Your task to perform on an android device: delete location history Image 0: 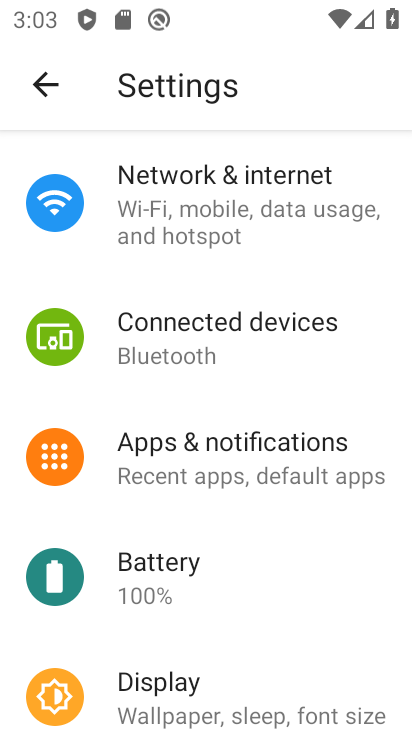
Step 0: press home button
Your task to perform on an android device: delete location history Image 1: 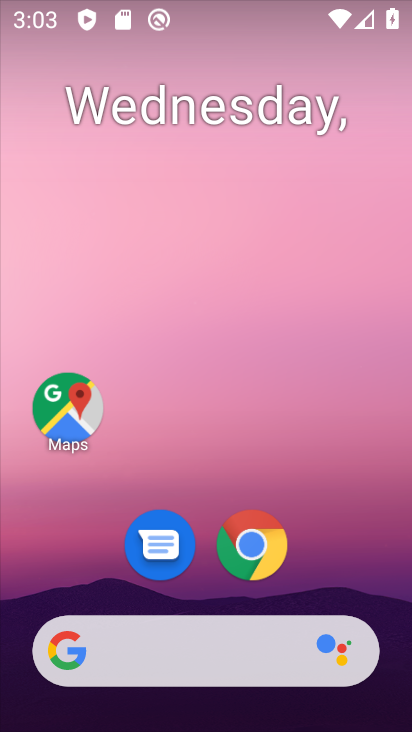
Step 1: drag from (314, 569) to (222, 36)
Your task to perform on an android device: delete location history Image 2: 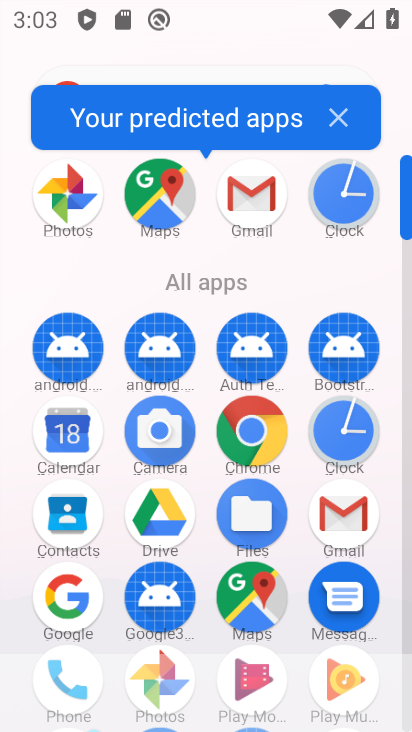
Step 2: click (286, 242)
Your task to perform on an android device: delete location history Image 3: 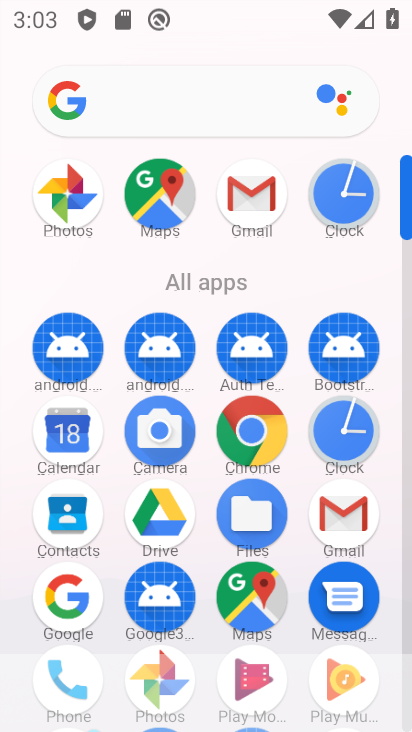
Step 3: drag from (268, 508) to (249, 269)
Your task to perform on an android device: delete location history Image 4: 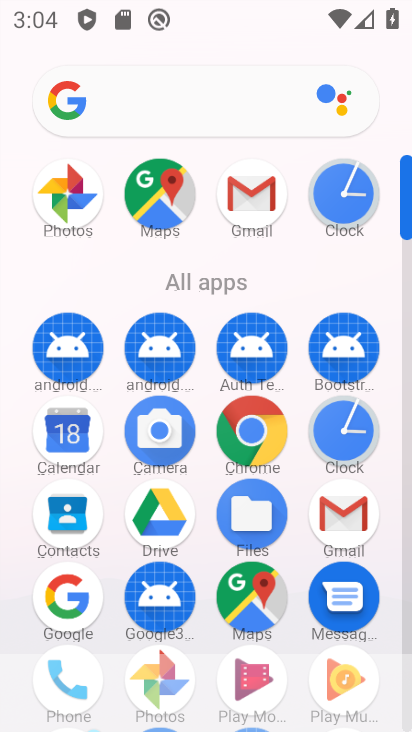
Step 4: drag from (274, 591) to (274, 286)
Your task to perform on an android device: delete location history Image 5: 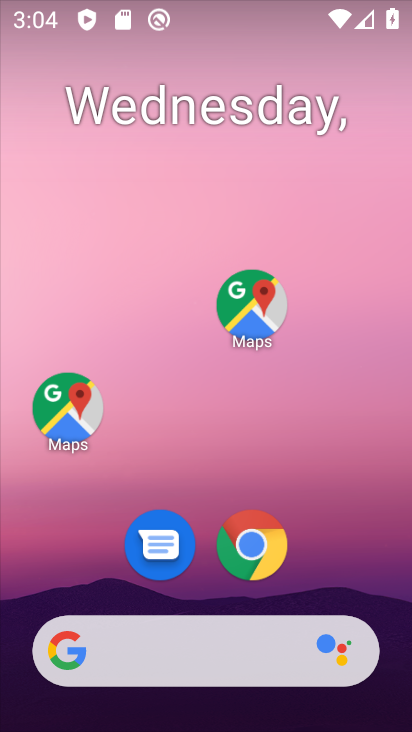
Step 5: drag from (194, 585) to (207, 187)
Your task to perform on an android device: delete location history Image 6: 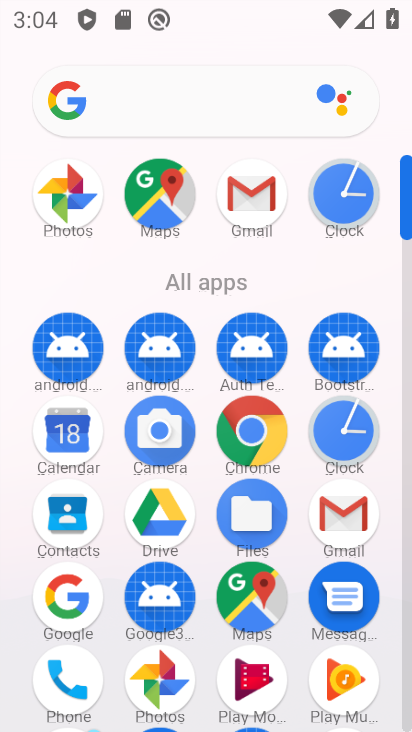
Step 6: drag from (274, 457) to (328, 329)
Your task to perform on an android device: delete location history Image 7: 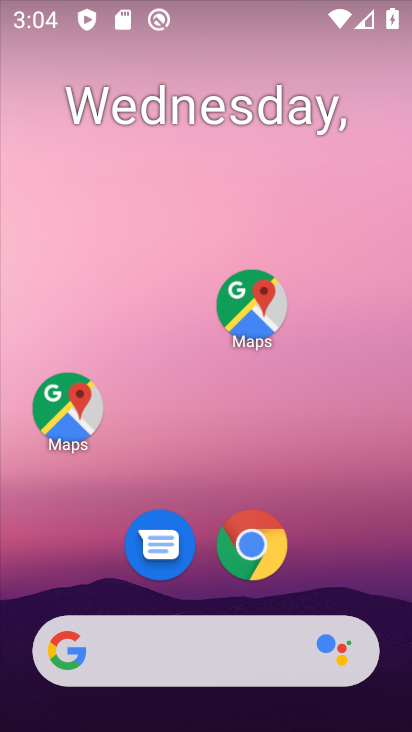
Step 7: drag from (302, 523) to (316, 149)
Your task to perform on an android device: delete location history Image 8: 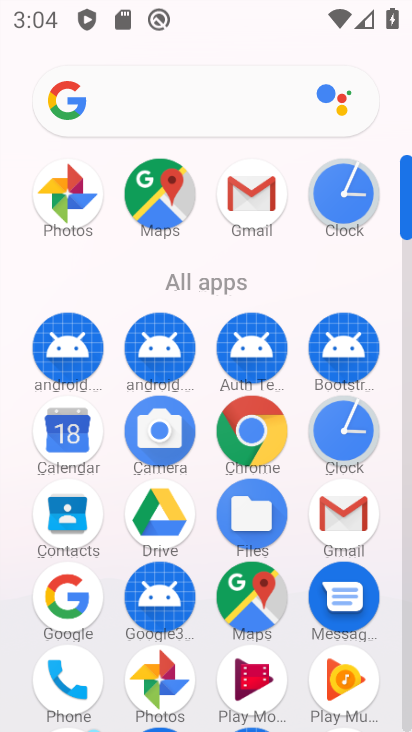
Step 8: drag from (185, 595) to (229, 285)
Your task to perform on an android device: delete location history Image 9: 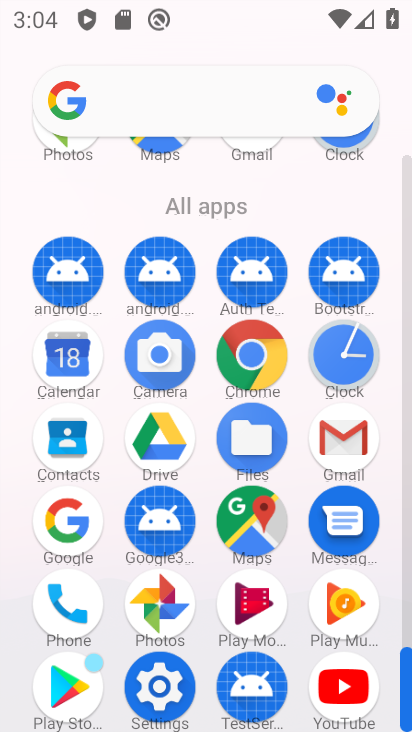
Step 9: click (150, 682)
Your task to perform on an android device: delete location history Image 10: 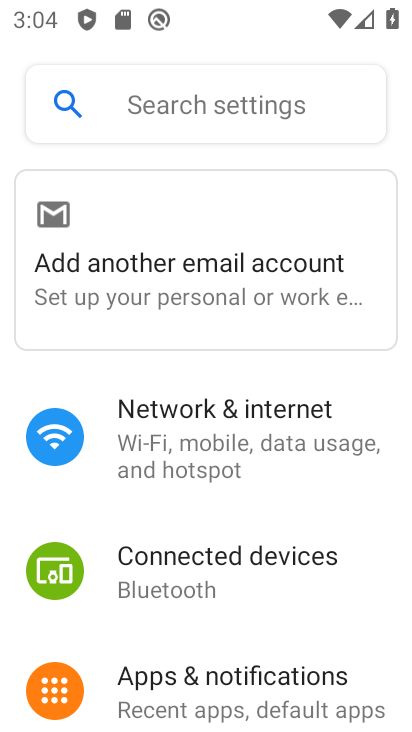
Step 10: drag from (189, 621) to (239, 340)
Your task to perform on an android device: delete location history Image 11: 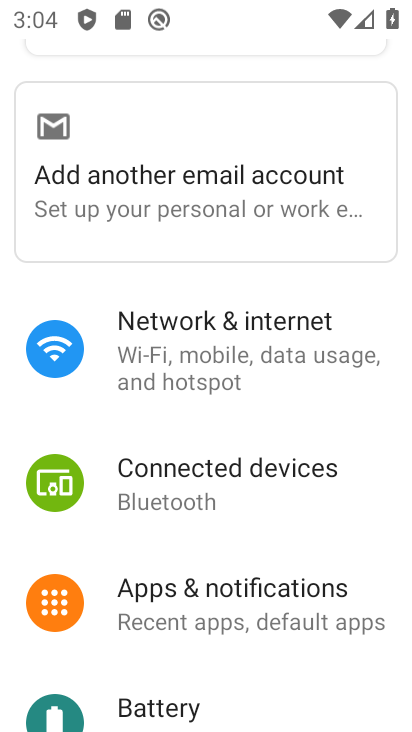
Step 11: click (232, 397)
Your task to perform on an android device: delete location history Image 12: 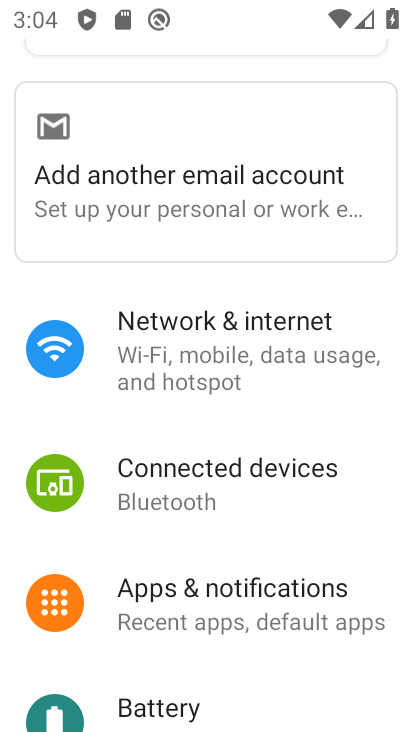
Step 12: drag from (234, 675) to (284, 343)
Your task to perform on an android device: delete location history Image 13: 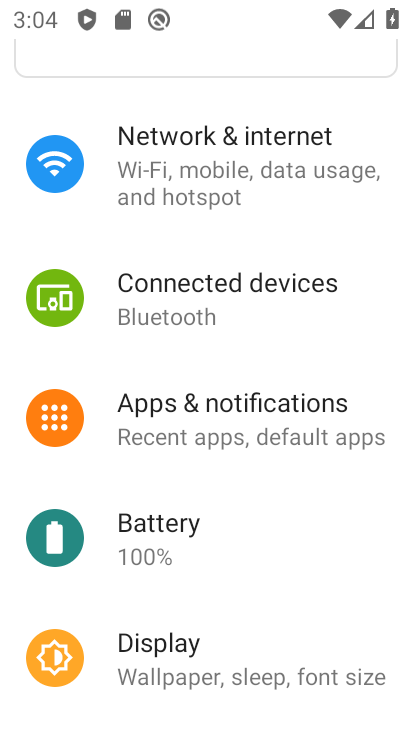
Step 13: drag from (182, 614) to (221, 343)
Your task to perform on an android device: delete location history Image 14: 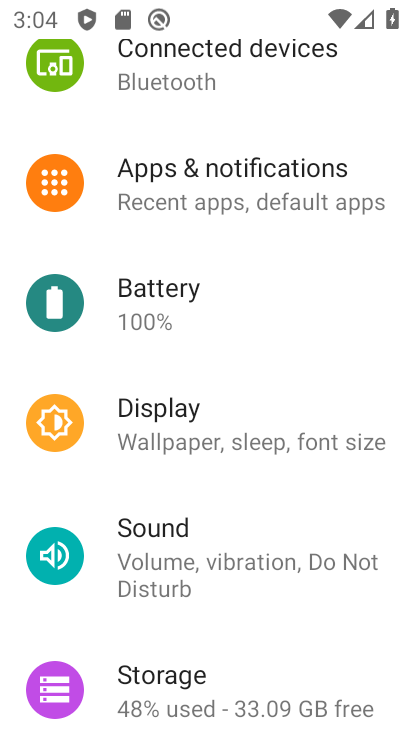
Step 14: drag from (209, 626) to (244, 333)
Your task to perform on an android device: delete location history Image 15: 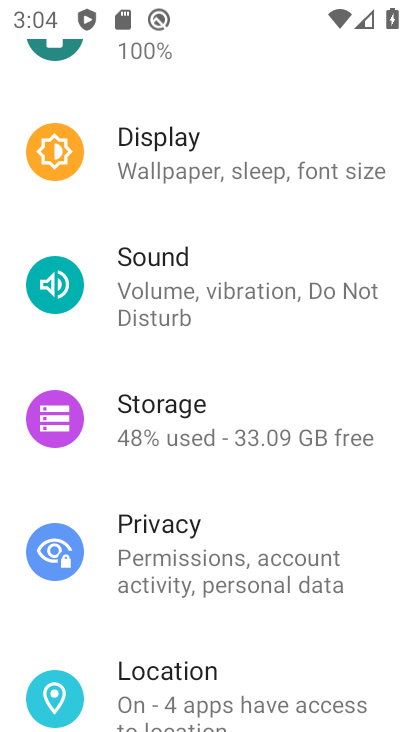
Step 15: drag from (170, 545) to (218, 315)
Your task to perform on an android device: delete location history Image 16: 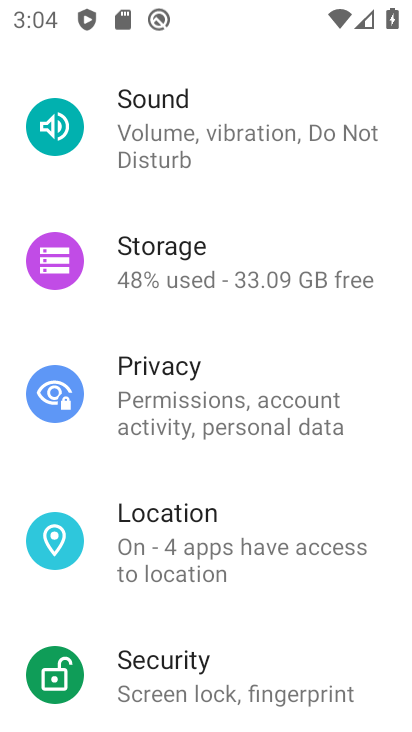
Step 16: click (177, 545)
Your task to perform on an android device: delete location history Image 17: 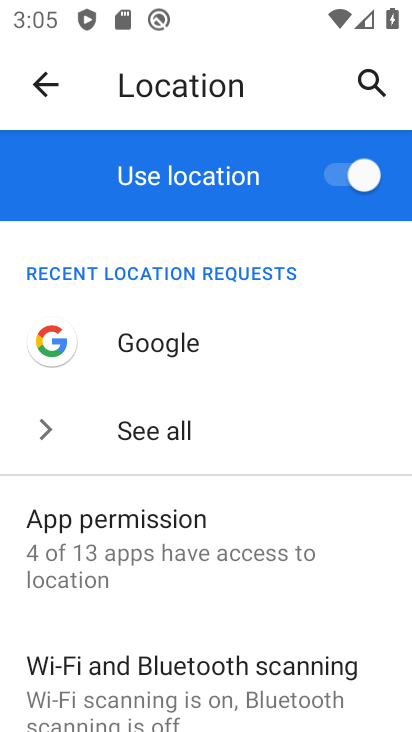
Step 17: drag from (219, 634) to (262, 326)
Your task to perform on an android device: delete location history Image 18: 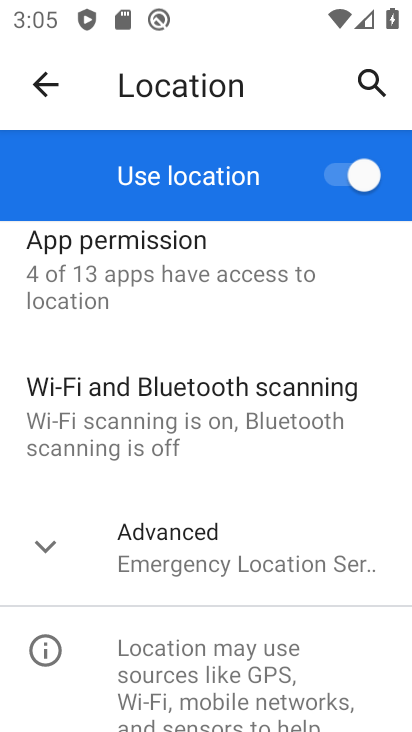
Step 18: drag from (190, 574) to (251, 205)
Your task to perform on an android device: delete location history Image 19: 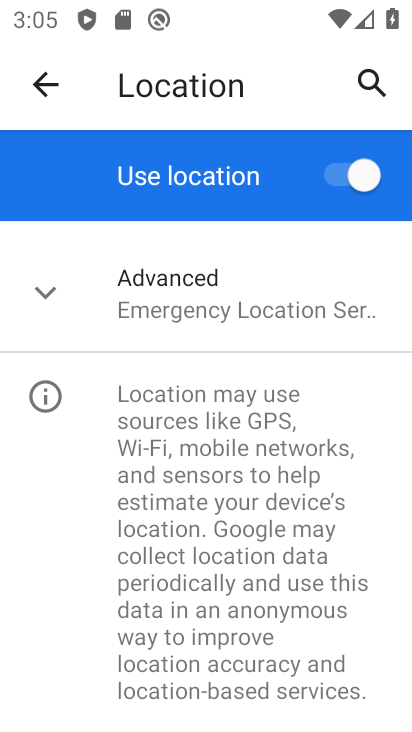
Step 19: click (152, 308)
Your task to perform on an android device: delete location history Image 20: 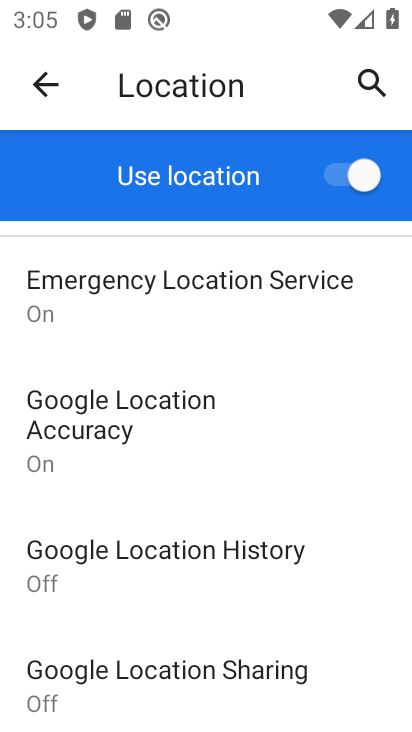
Step 20: click (140, 559)
Your task to perform on an android device: delete location history Image 21: 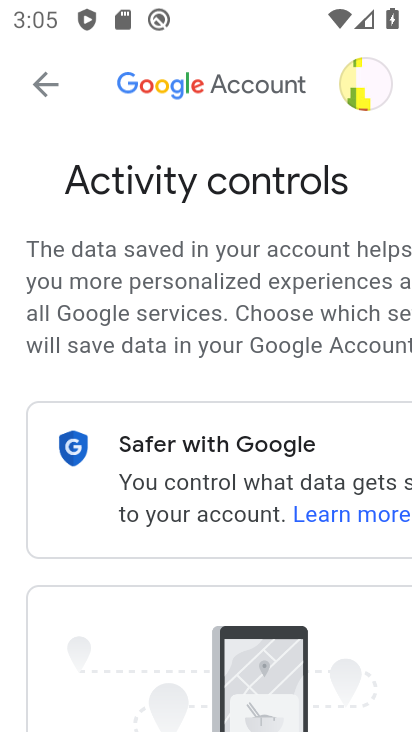
Step 21: drag from (263, 590) to (284, 205)
Your task to perform on an android device: delete location history Image 22: 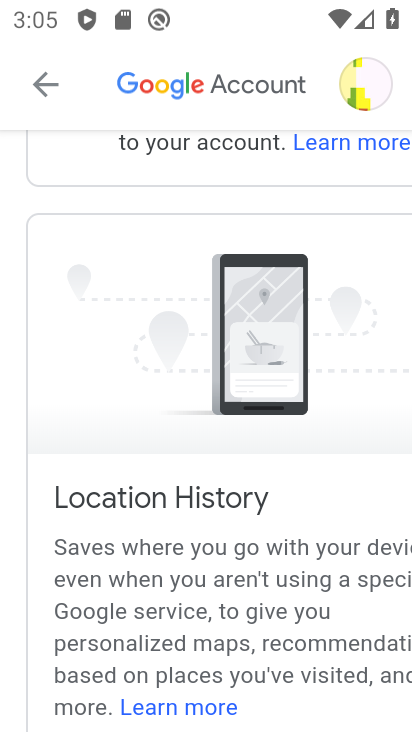
Step 22: drag from (269, 554) to (252, 109)
Your task to perform on an android device: delete location history Image 23: 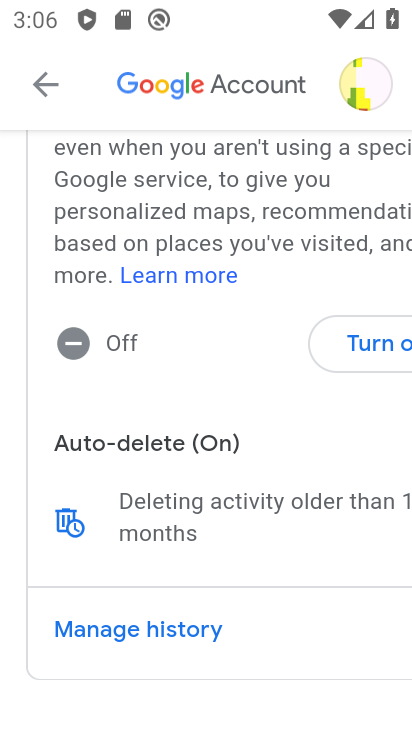
Step 23: click (117, 635)
Your task to perform on an android device: delete location history Image 24: 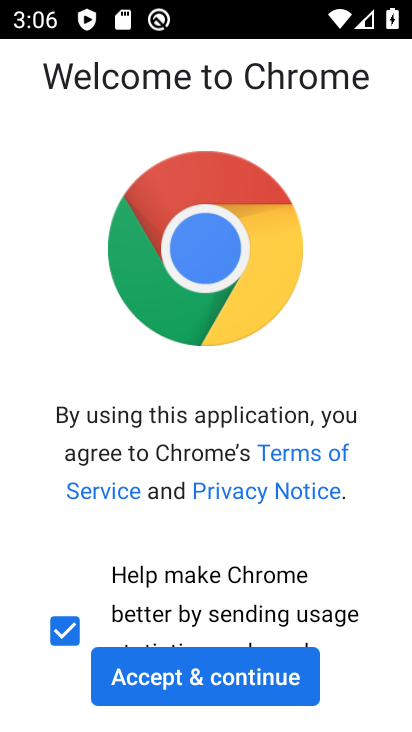
Step 24: click (175, 687)
Your task to perform on an android device: delete location history Image 25: 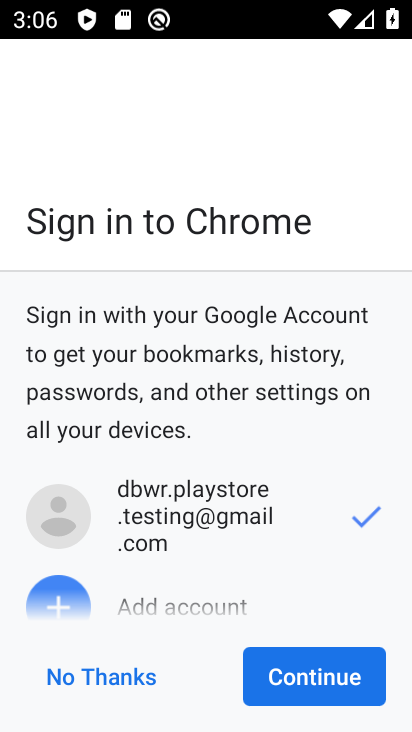
Step 25: click (309, 682)
Your task to perform on an android device: delete location history Image 26: 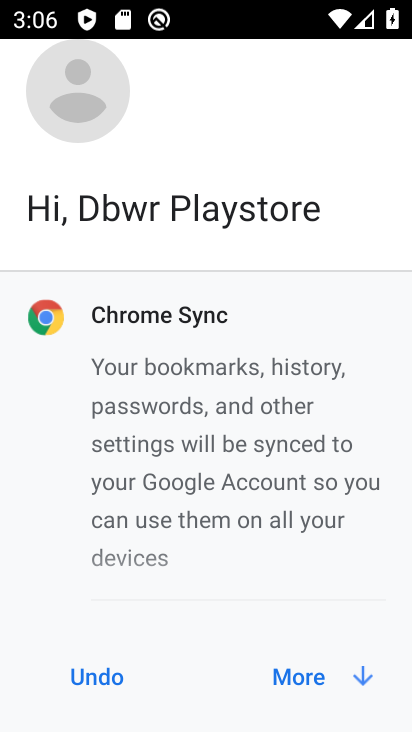
Step 26: click (294, 681)
Your task to perform on an android device: delete location history Image 27: 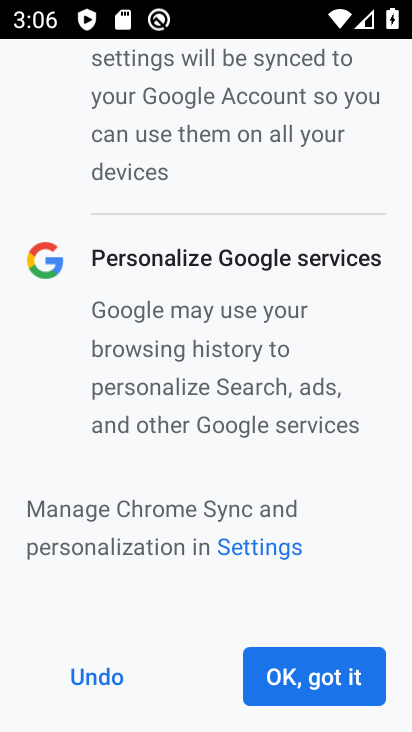
Step 27: click (294, 681)
Your task to perform on an android device: delete location history Image 28: 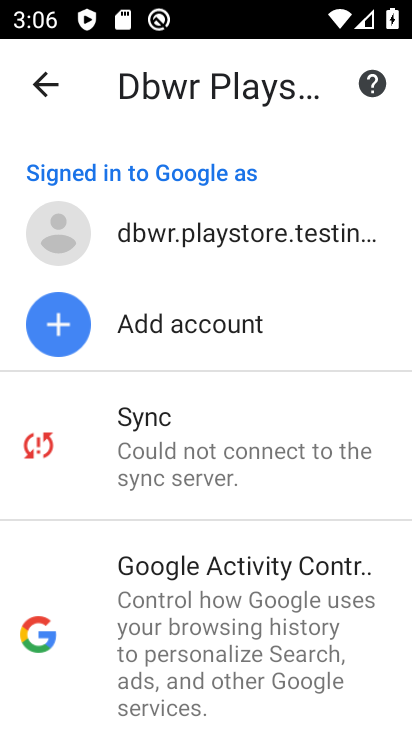
Step 28: click (43, 95)
Your task to perform on an android device: delete location history Image 29: 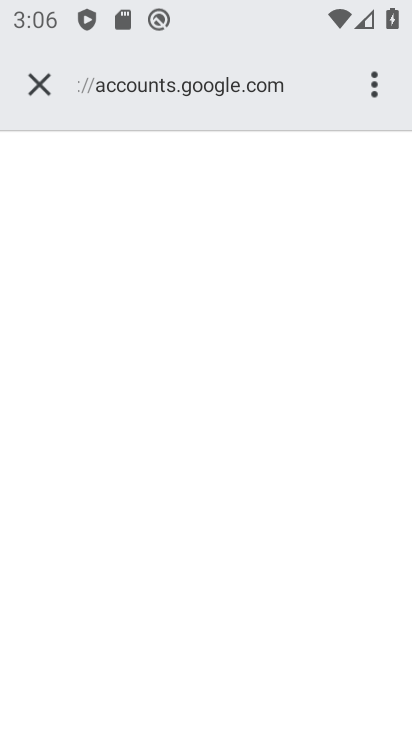
Step 29: press back button
Your task to perform on an android device: delete location history Image 30: 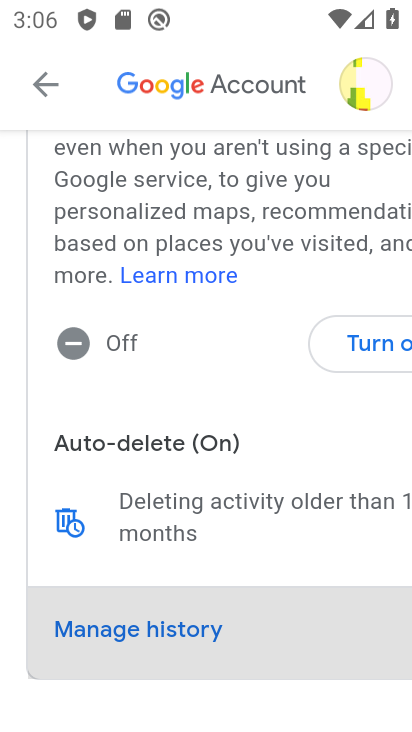
Step 30: click (119, 624)
Your task to perform on an android device: delete location history Image 31: 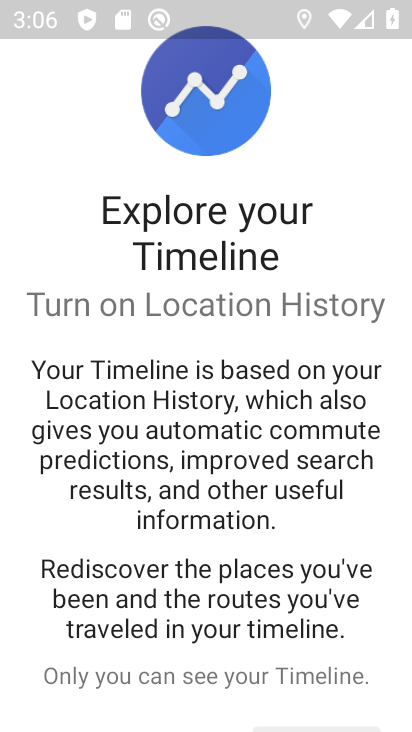
Step 31: click (315, 377)
Your task to perform on an android device: delete location history Image 32: 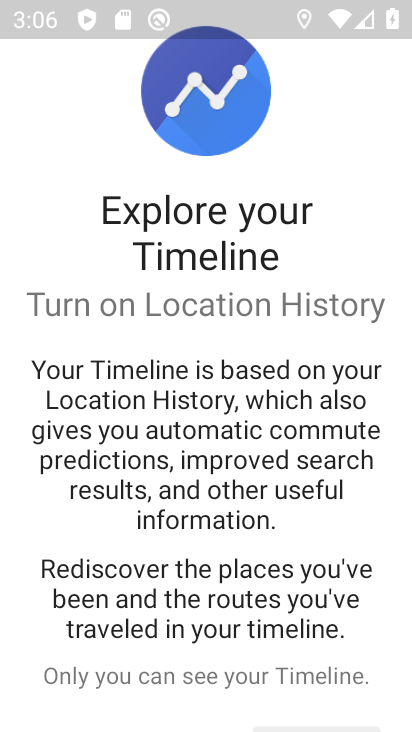
Step 32: click (236, 420)
Your task to perform on an android device: delete location history Image 33: 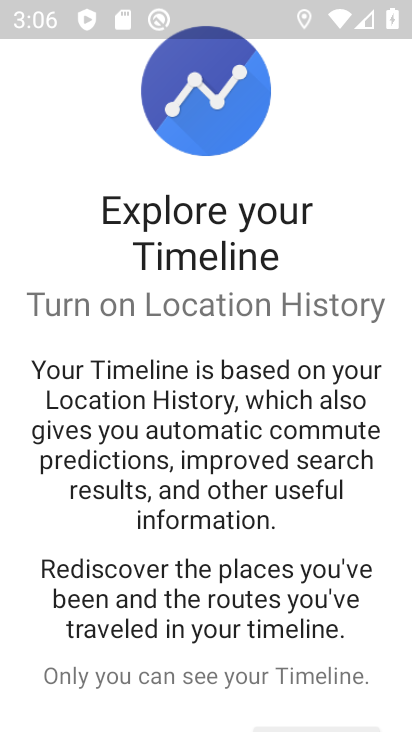
Step 33: drag from (286, 629) to (260, 371)
Your task to perform on an android device: delete location history Image 34: 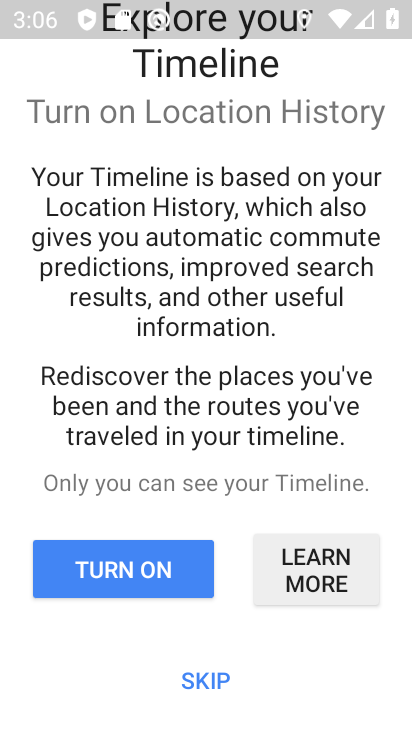
Step 34: click (198, 682)
Your task to perform on an android device: delete location history Image 35: 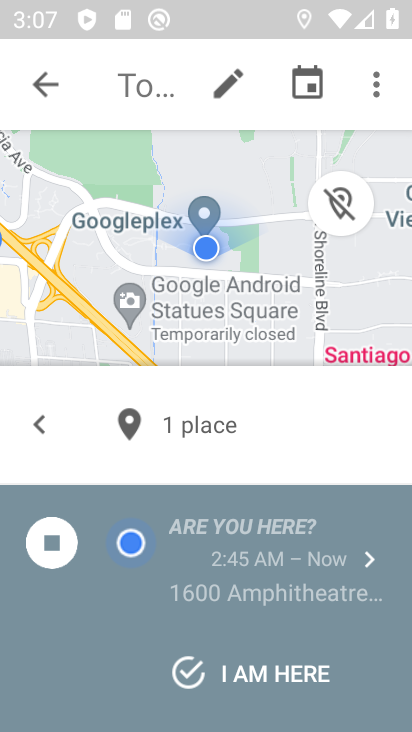
Step 35: click (376, 90)
Your task to perform on an android device: delete location history Image 36: 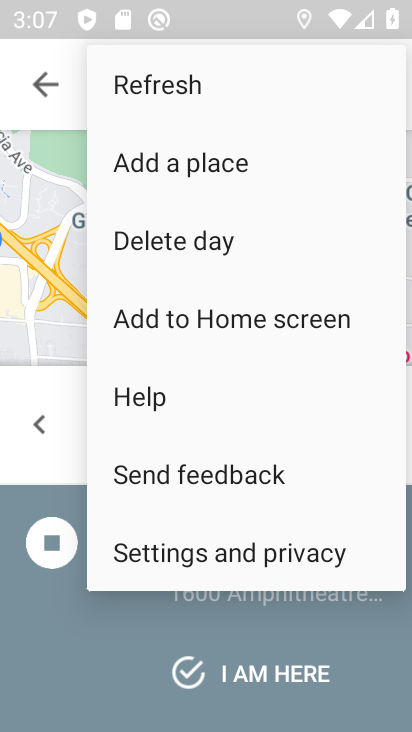
Step 36: click (199, 523)
Your task to perform on an android device: delete location history Image 37: 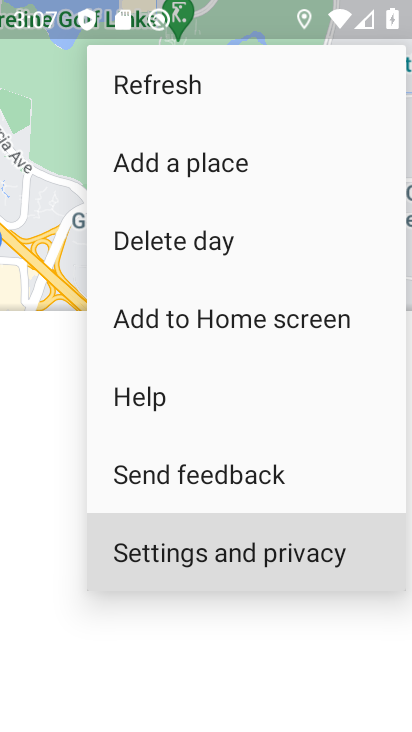
Step 37: click (189, 548)
Your task to perform on an android device: delete location history Image 38: 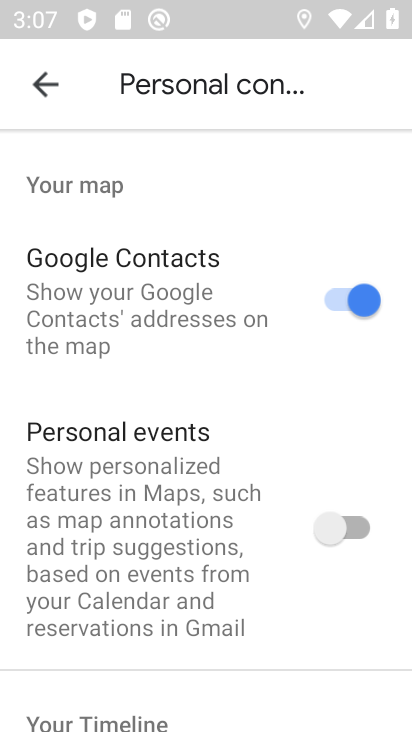
Step 38: drag from (166, 611) to (211, 352)
Your task to perform on an android device: delete location history Image 39: 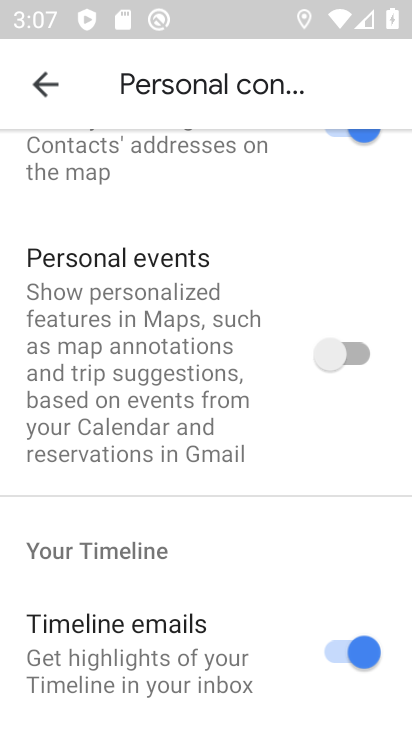
Step 39: drag from (143, 617) to (167, 389)
Your task to perform on an android device: delete location history Image 40: 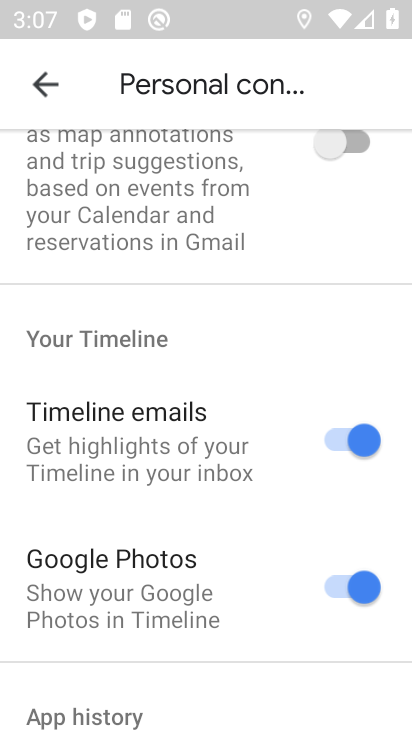
Step 40: click (194, 406)
Your task to perform on an android device: delete location history Image 41: 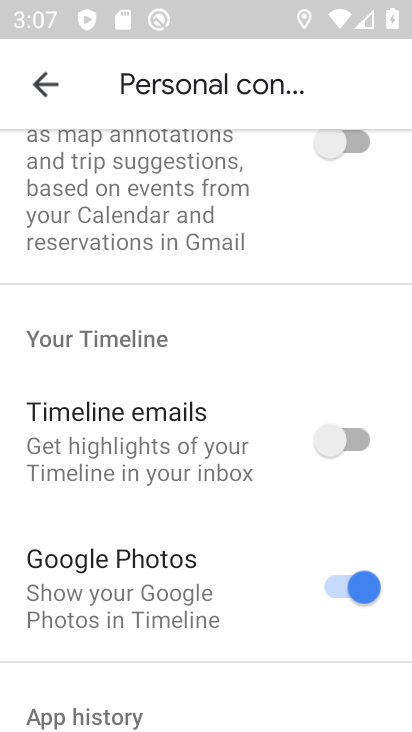
Step 41: drag from (158, 660) to (185, 360)
Your task to perform on an android device: delete location history Image 42: 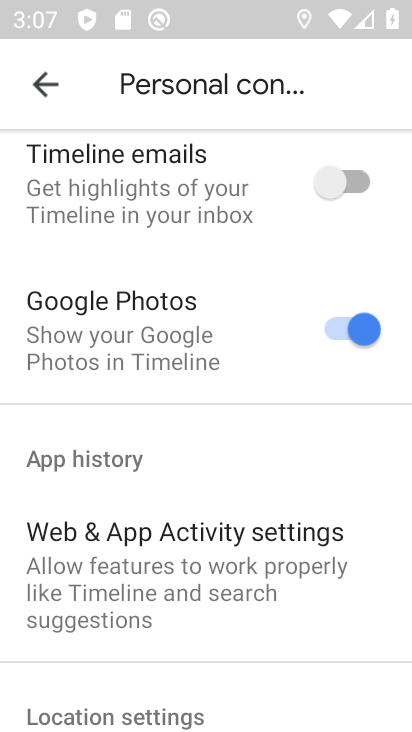
Step 42: drag from (115, 649) to (182, 351)
Your task to perform on an android device: delete location history Image 43: 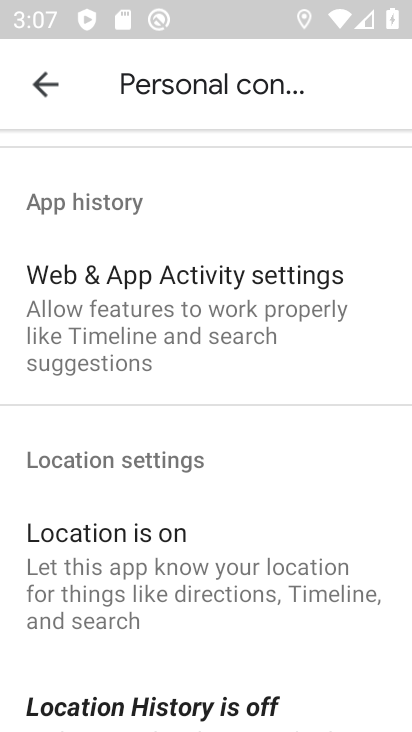
Step 43: drag from (125, 609) to (161, 372)
Your task to perform on an android device: delete location history Image 44: 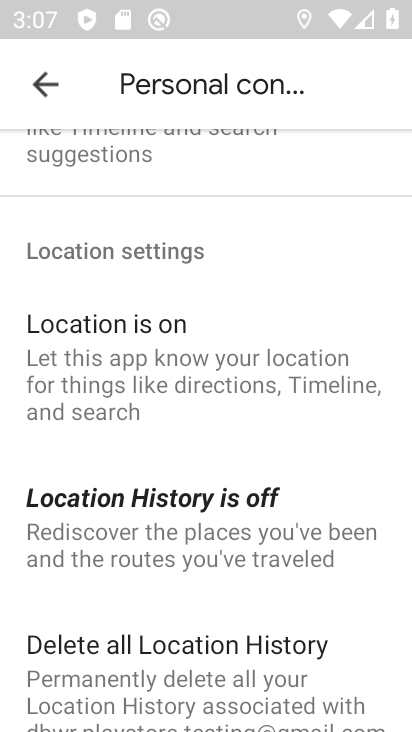
Step 44: drag from (138, 643) to (169, 426)
Your task to perform on an android device: delete location history Image 45: 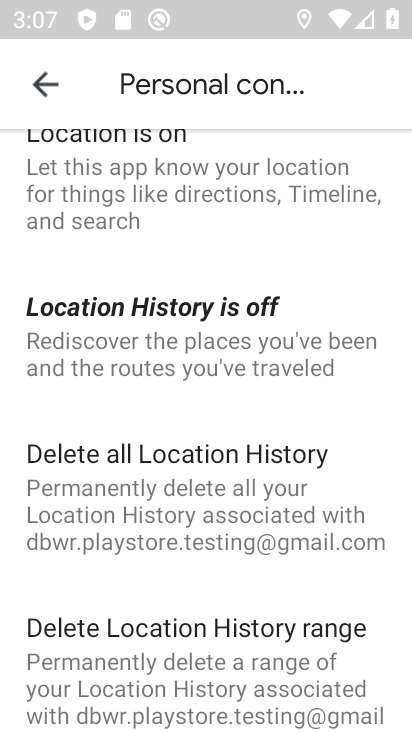
Step 45: click (157, 496)
Your task to perform on an android device: delete location history Image 46: 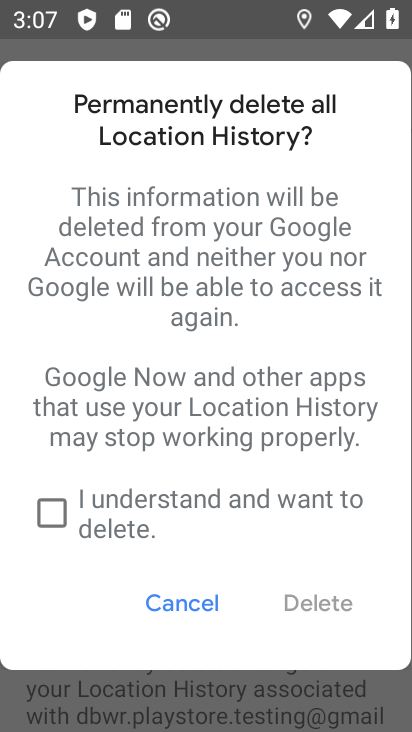
Step 46: click (50, 511)
Your task to perform on an android device: delete location history Image 47: 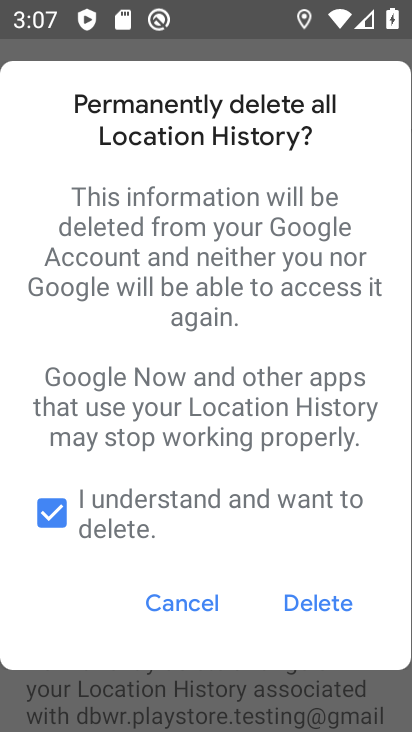
Step 47: click (295, 598)
Your task to perform on an android device: delete location history Image 48: 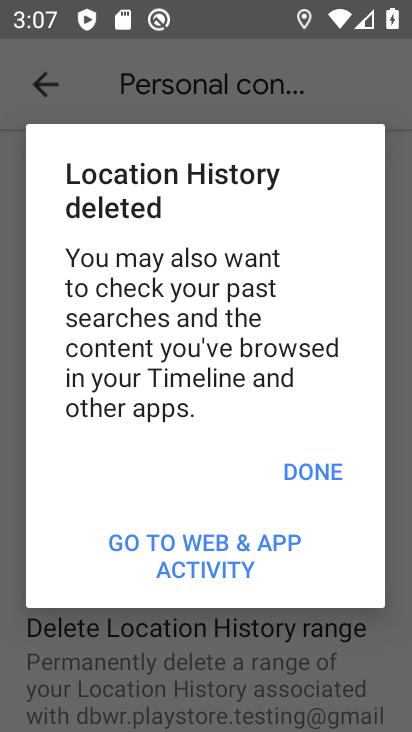
Step 48: click (304, 472)
Your task to perform on an android device: delete location history Image 49: 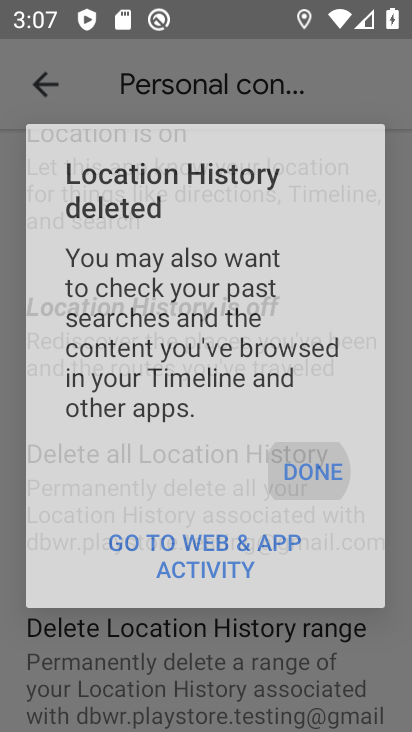
Step 49: task complete